Your task to perform on an android device: Clear the cart on walmart. Search for rayovac triple a on walmart, select the first entry, and add it to the cart. Image 0: 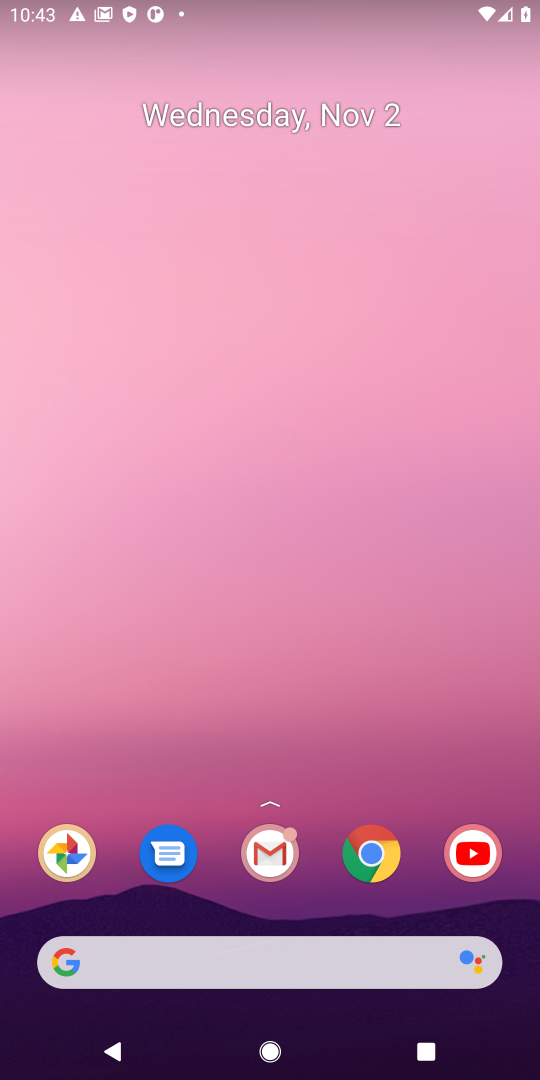
Step 0: click (375, 852)
Your task to perform on an android device: Clear the cart on walmart. Search for rayovac triple a on walmart, select the first entry, and add it to the cart. Image 1: 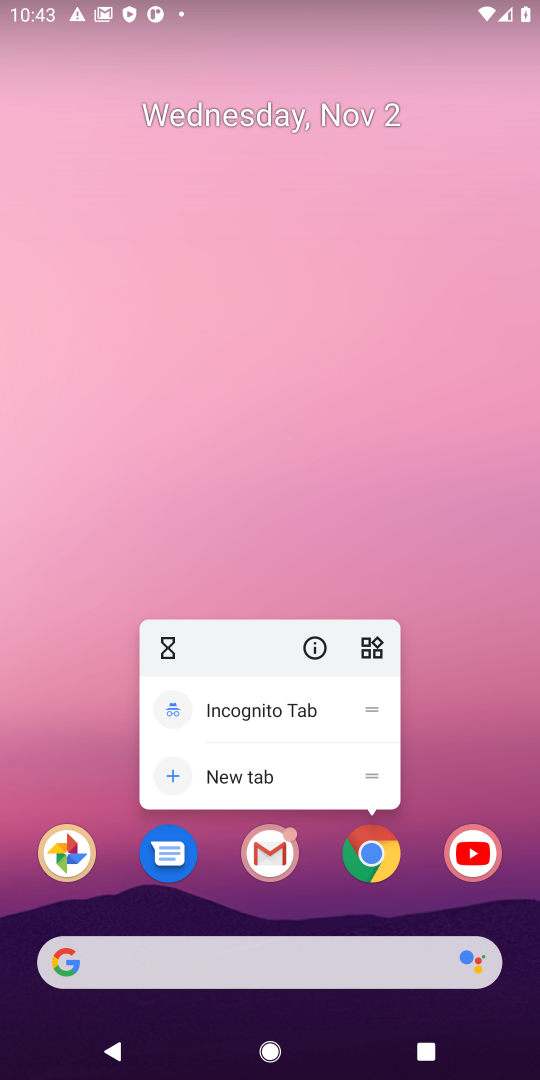
Step 1: click (375, 853)
Your task to perform on an android device: Clear the cart on walmart. Search for rayovac triple a on walmart, select the first entry, and add it to the cart. Image 2: 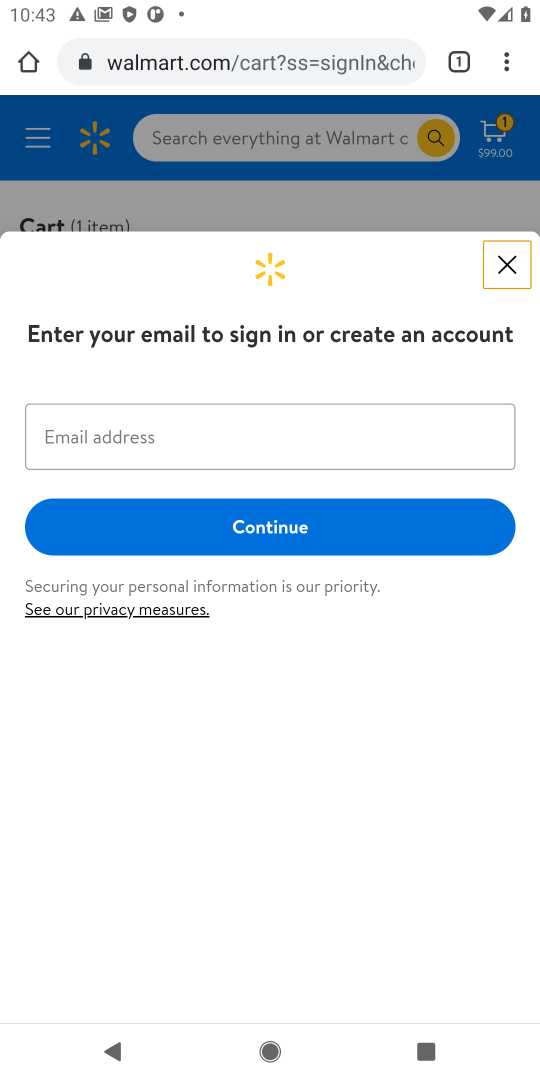
Step 2: click (270, 50)
Your task to perform on an android device: Clear the cart on walmart. Search for rayovac triple a on walmart, select the first entry, and add it to the cart. Image 3: 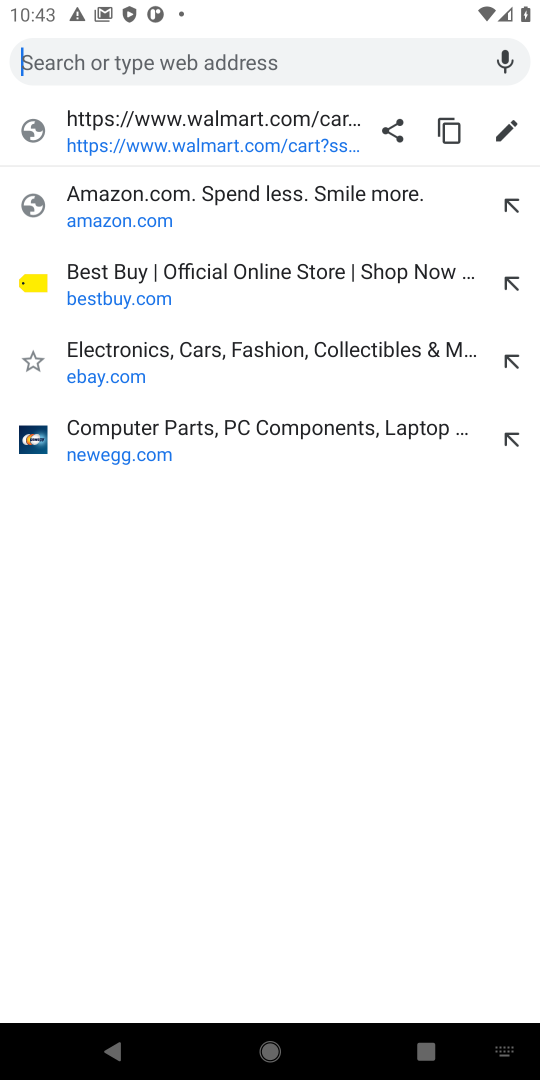
Step 3: click (195, 125)
Your task to perform on an android device: Clear the cart on walmart. Search for rayovac triple a on walmart, select the first entry, and add it to the cart. Image 4: 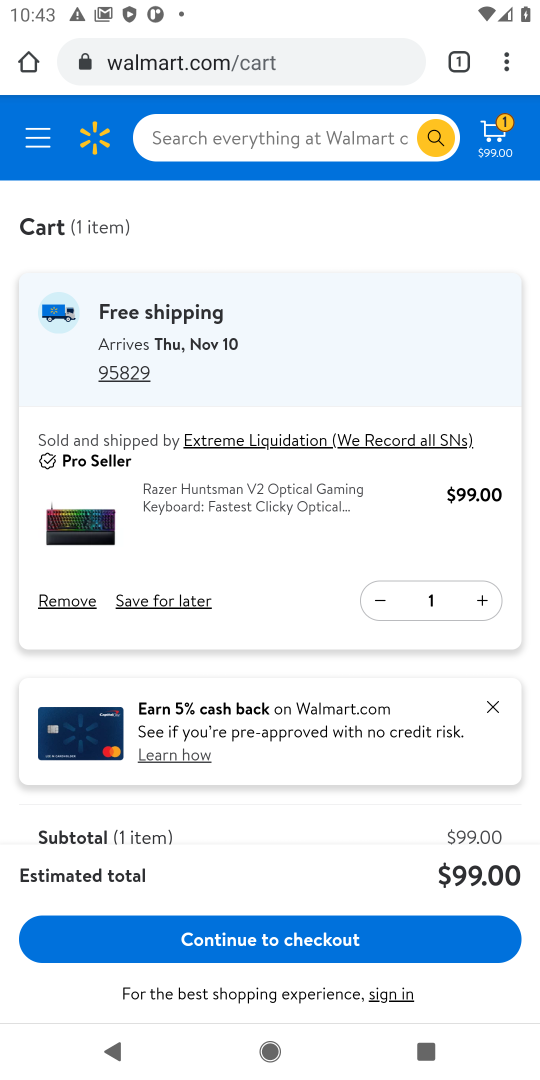
Step 4: click (277, 132)
Your task to perform on an android device: Clear the cart on walmart. Search for rayovac triple a on walmart, select the first entry, and add it to the cart. Image 5: 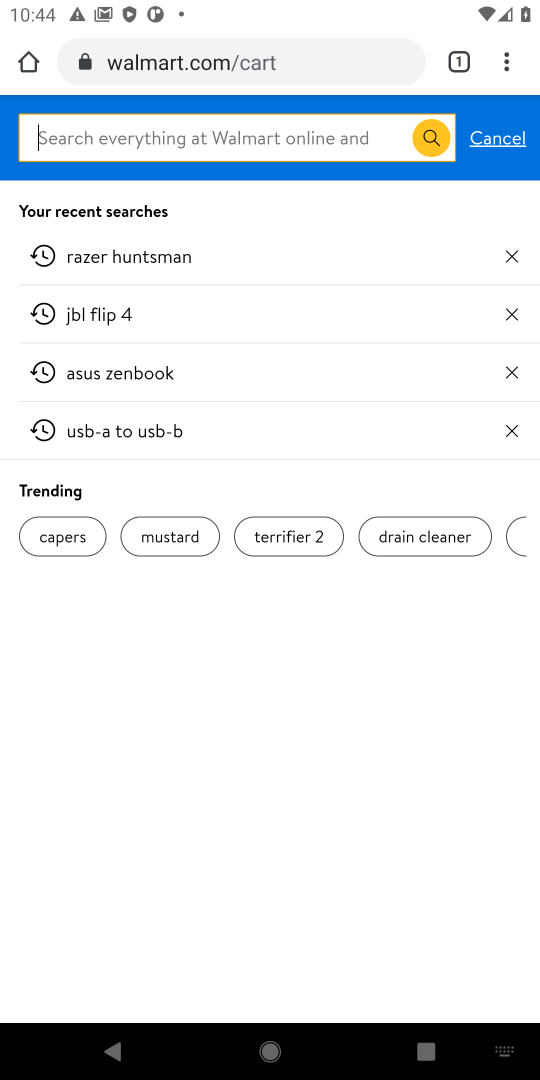
Step 5: type " rayovac triple a "
Your task to perform on an android device: Clear the cart on walmart. Search for rayovac triple a on walmart, select the first entry, and add it to the cart. Image 6: 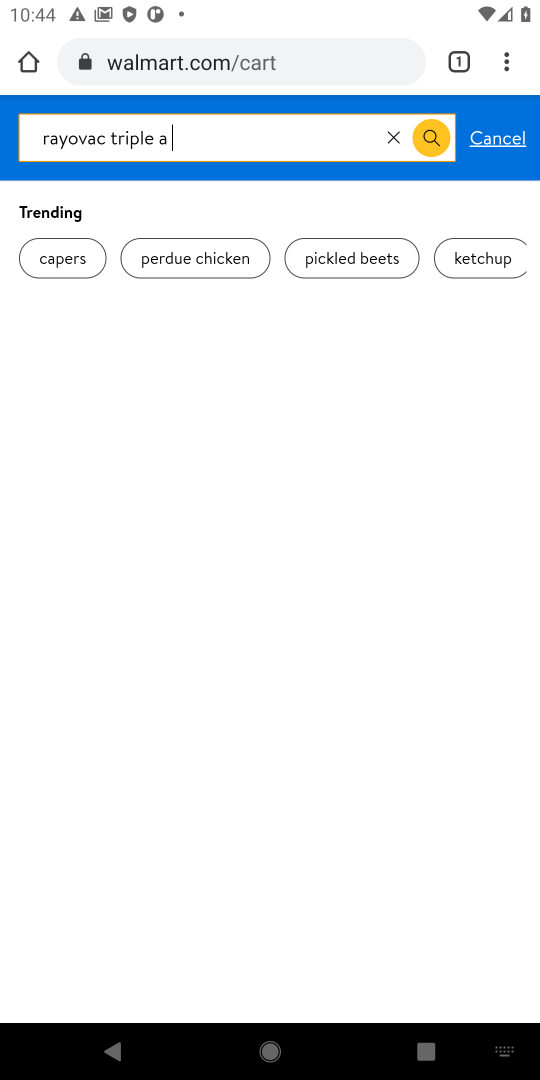
Step 6: press enter
Your task to perform on an android device: Clear the cart on walmart. Search for rayovac triple a on walmart, select the first entry, and add it to the cart. Image 7: 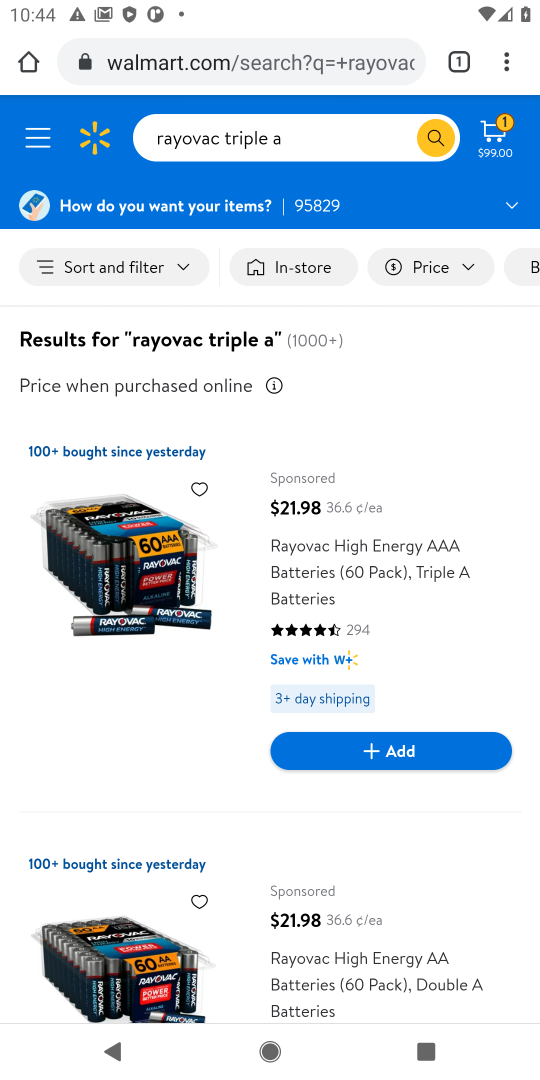
Step 7: click (381, 593)
Your task to perform on an android device: Clear the cart on walmart. Search for rayovac triple a on walmart, select the first entry, and add it to the cart. Image 8: 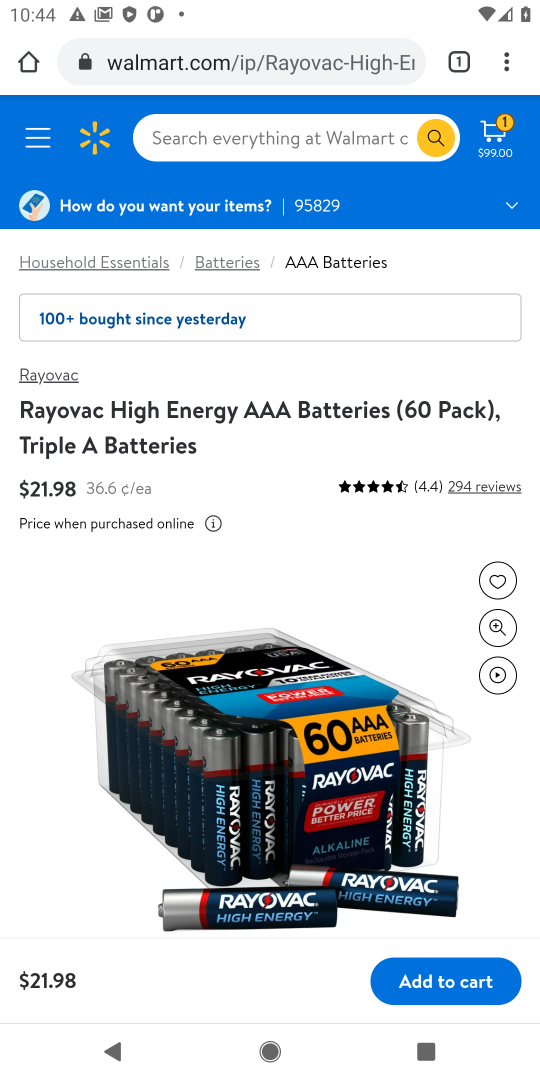
Step 8: click (461, 986)
Your task to perform on an android device: Clear the cart on walmart. Search for rayovac triple a on walmart, select the first entry, and add it to the cart. Image 9: 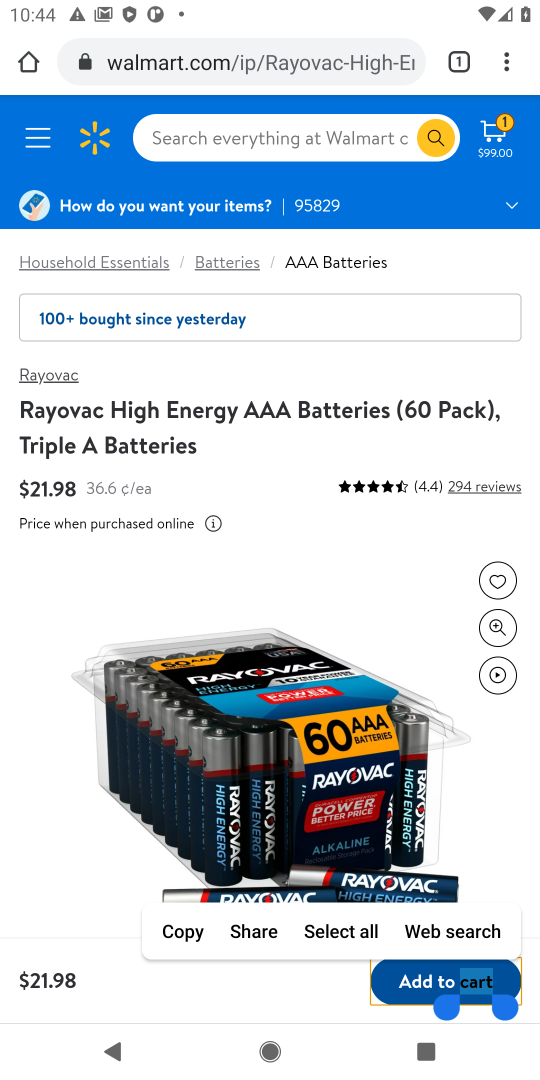
Step 9: click (431, 984)
Your task to perform on an android device: Clear the cart on walmart. Search for rayovac triple a on walmart, select the first entry, and add it to the cart. Image 10: 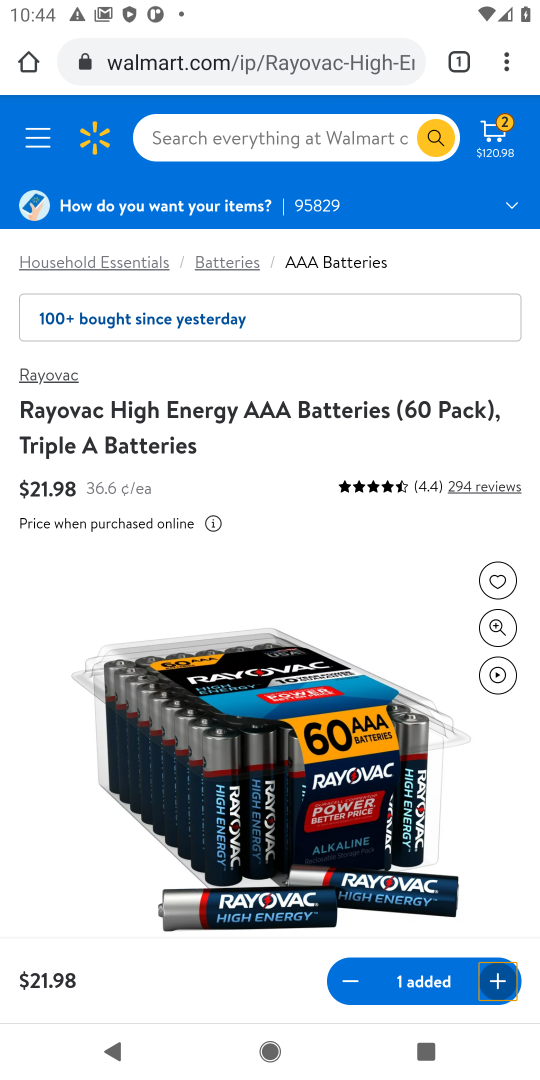
Step 10: click (495, 128)
Your task to perform on an android device: Clear the cart on walmart. Search for rayovac triple a on walmart, select the first entry, and add it to the cart. Image 11: 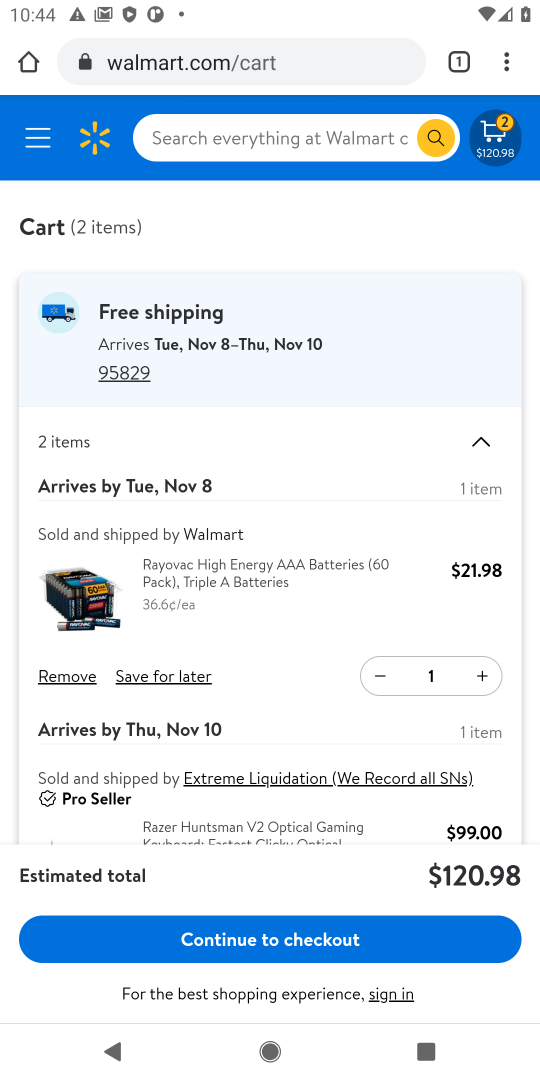
Step 11: drag from (329, 774) to (536, 117)
Your task to perform on an android device: Clear the cart on walmart. Search for rayovac triple a on walmart, select the first entry, and add it to the cart. Image 12: 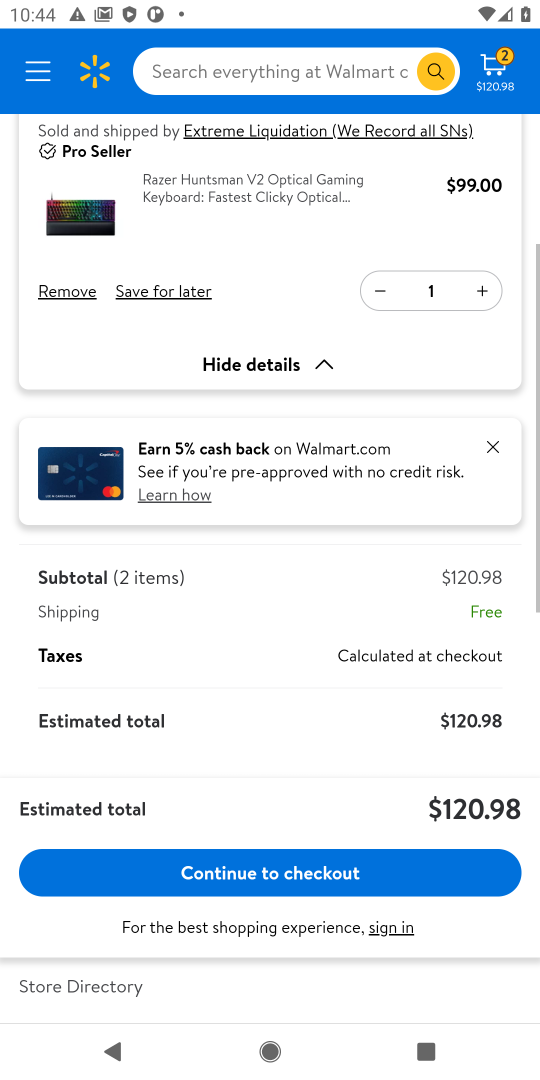
Step 12: drag from (319, 657) to (463, 78)
Your task to perform on an android device: Clear the cart on walmart. Search for rayovac triple a on walmart, select the first entry, and add it to the cart. Image 13: 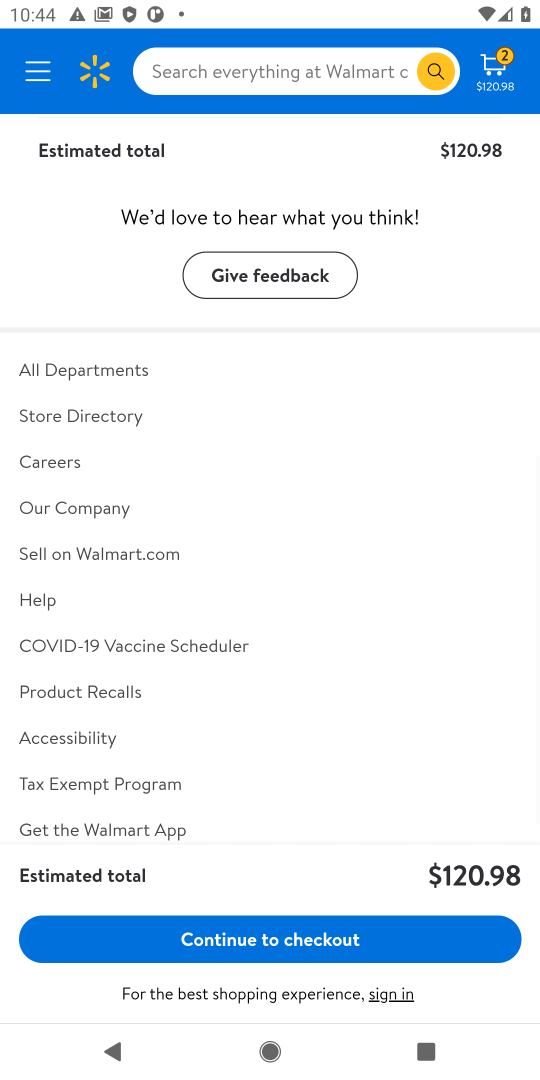
Step 13: drag from (297, 664) to (290, 834)
Your task to perform on an android device: Clear the cart on walmart. Search for rayovac triple a on walmart, select the first entry, and add it to the cart. Image 14: 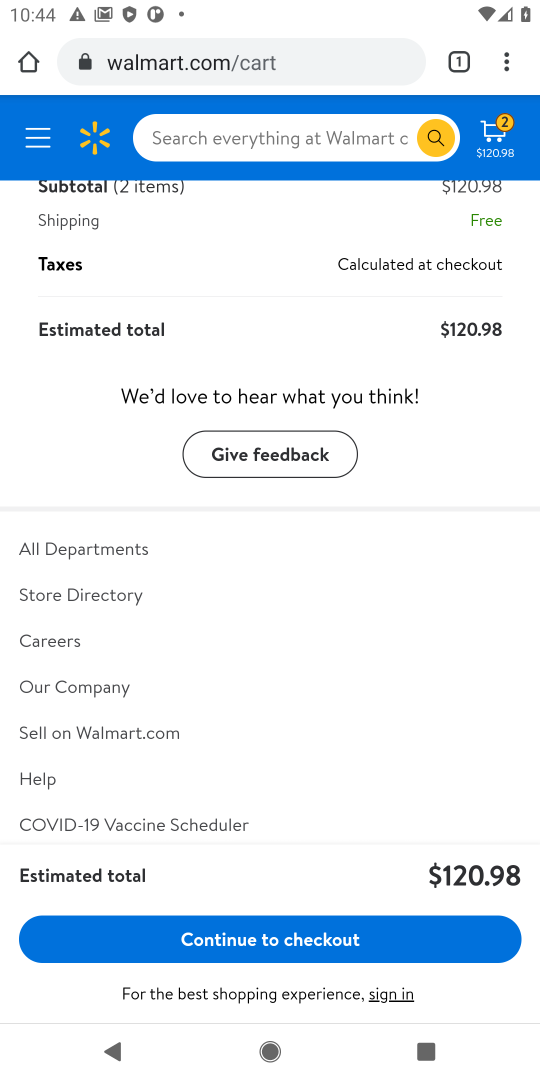
Step 14: drag from (392, 493) to (360, 873)
Your task to perform on an android device: Clear the cart on walmart. Search for rayovac triple a on walmart, select the first entry, and add it to the cart. Image 15: 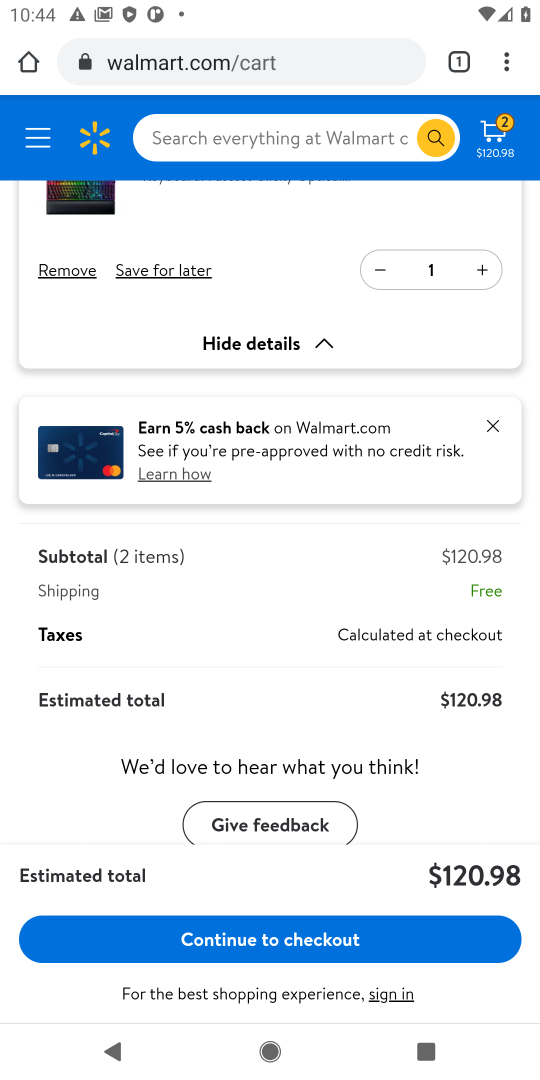
Step 15: drag from (405, 384) to (394, 753)
Your task to perform on an android device: Clear the cart on walmart. Search for rayovac triple a on walmart, select the first entry, and add it to the cart. Image 16: 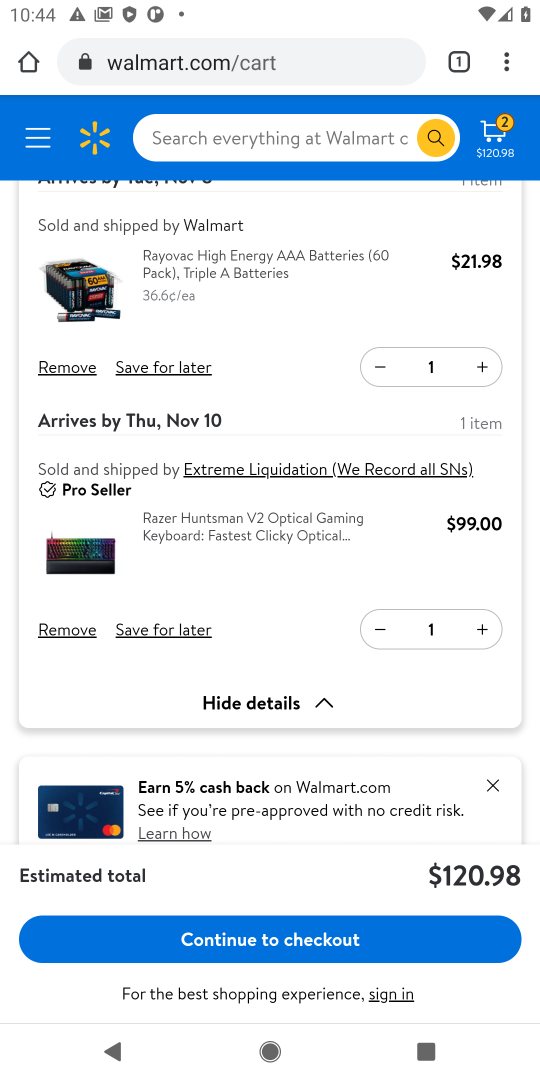
Step 16: click (489, 777)
Your task to perform on an android device: Clear the cart on walmart. Search for rayovac triple a on walmart, select the first entry, and add it to the cart. Image 17: 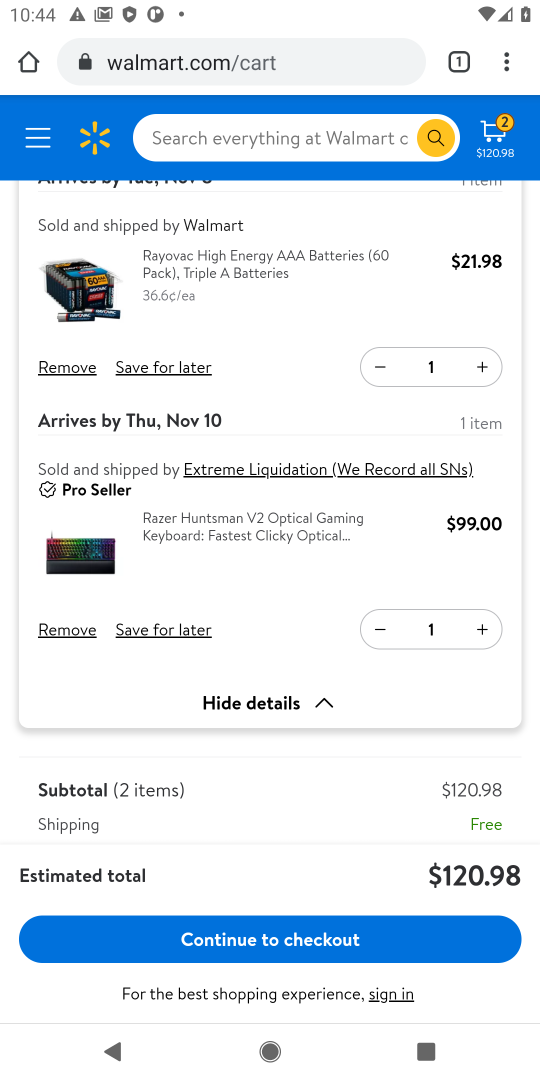
Step 17: drag from (309, 397) to (350, 650)
Your task to perform on an android device: Clear the cart on walmart. Search for rayovac triple a on walmart, select the first entry, and add it to the cart. Image 18: 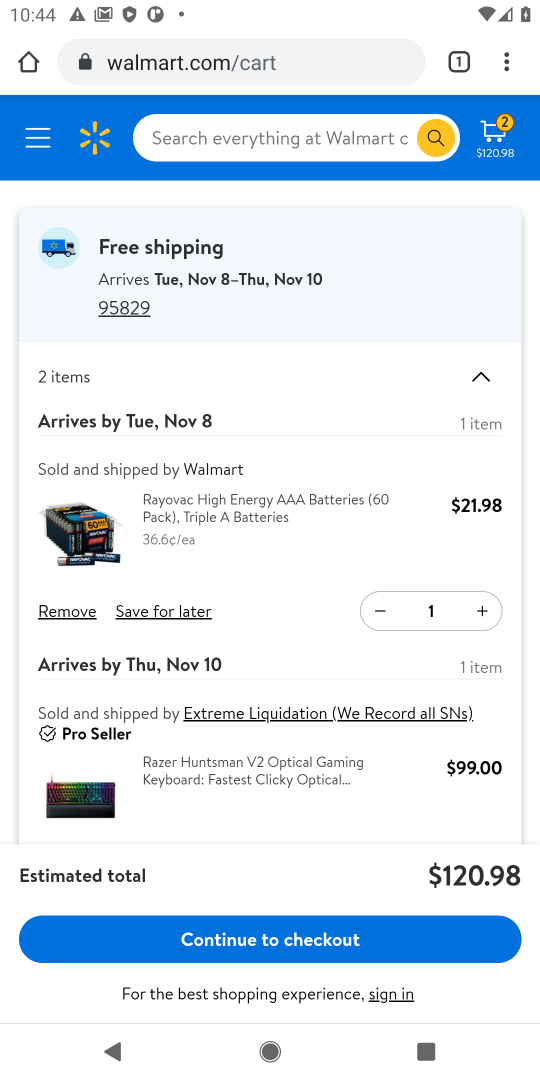
Step 18: drag from (307, 785) to (431, 534)
Your task to perform on an android device: Clear the cart on walmart. Search for rayovac triple a on walmart, select the first entry, and add it to the cart. Image 19: 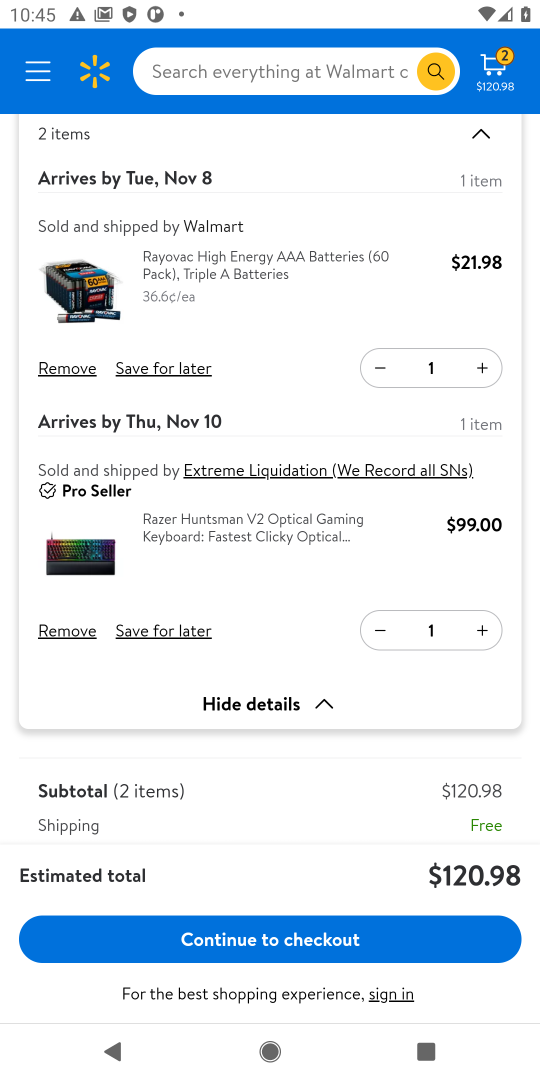
Step 19: click (77, 634)
Your task to perform on an android device: Clear the cart on walmart. Search for rayovac triple a on walmart, select the first entry, and add it to the cart. Image 20: 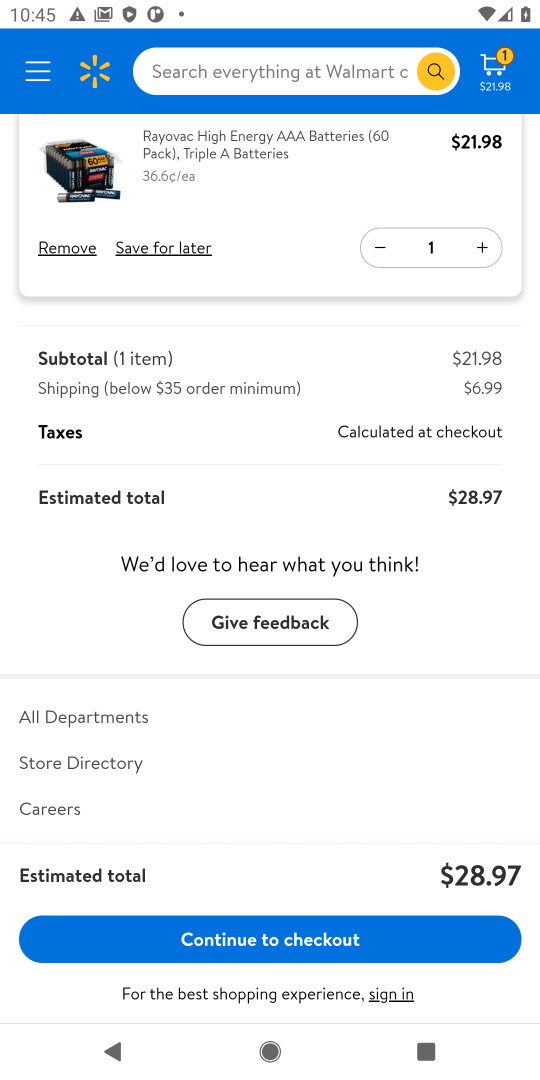
Step 20: task complete